Your task to perform on an android device: Go to calendar. Show me events next week Image 0: 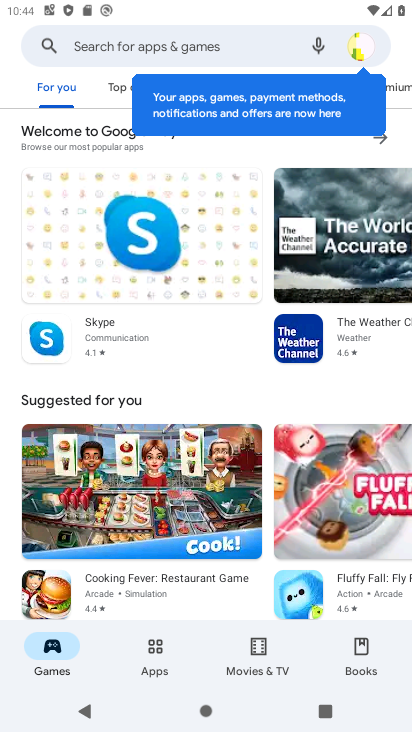
Step 0: press home button
Your task to perform on an android device: Go to calendar. Show me events next week Image 1: 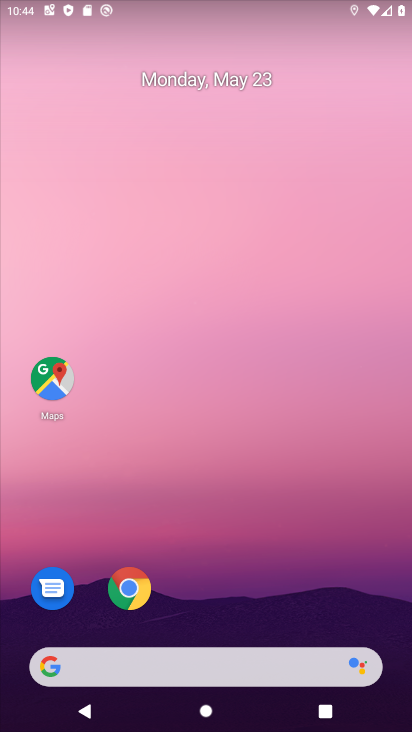
Step 1: drag from (316, 605) to (312, 140)
Your task to perform on an android device: Go to calendar. Show me events next week Image 2: 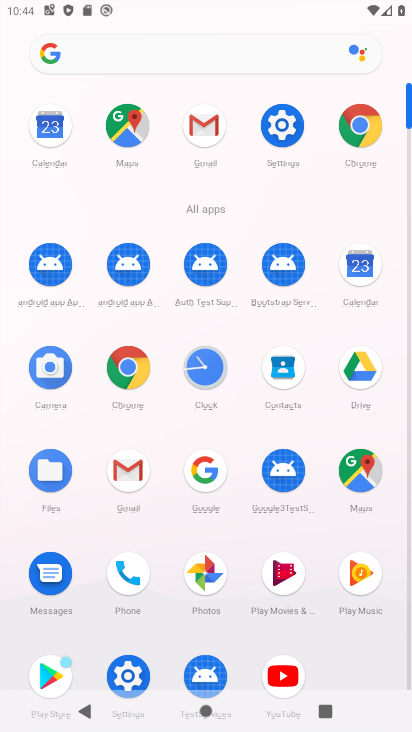
Step 2: click (357, 261)
Your task to perform on an android device: Go to calendar. Show me events next week Image 3: 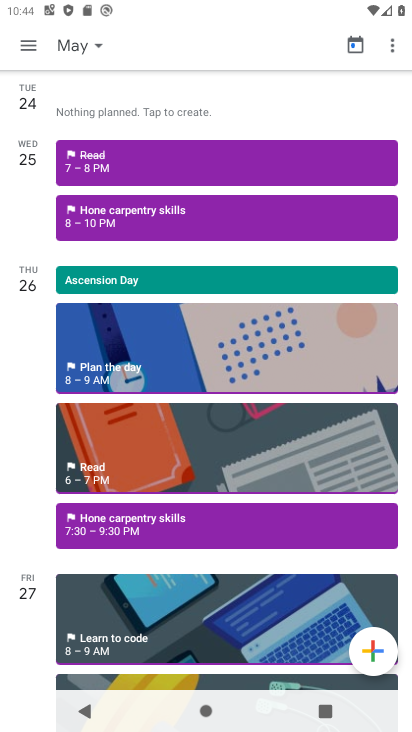
Step 3: click (65, 40)
Your task to perform on an android device: Go to calendar. Show me events next week Image 4: 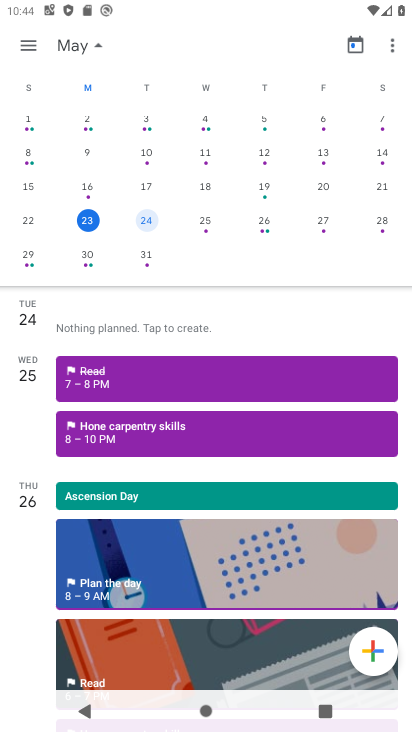
Step 4: click (94, 252)
Your task to perform on an android device: Go to calendar. Show me events next week Image 5: 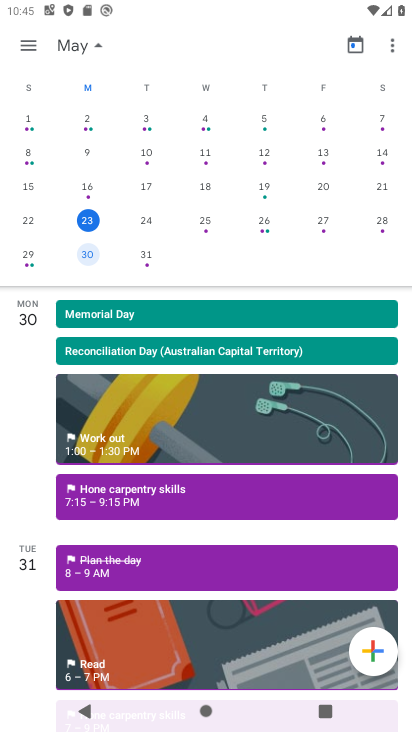
Step 5: click (35, 37)
Your task to perform on an android device: Go to calendar. Show me events next week Image 6: 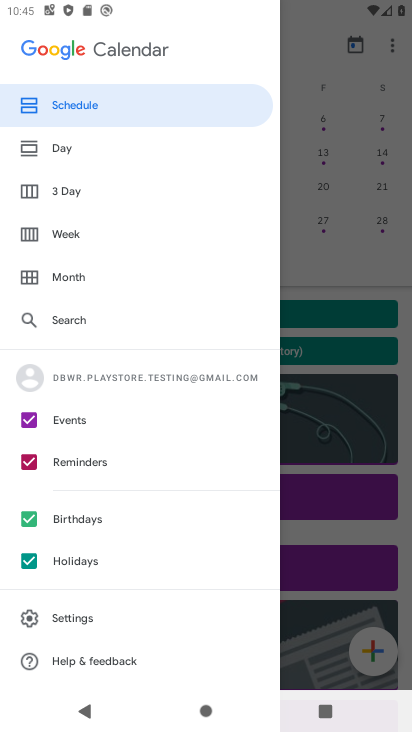
Step 6: click (78, 230)
Your task to perform on an android device: Go to calendar. Show me events next week Image 7: 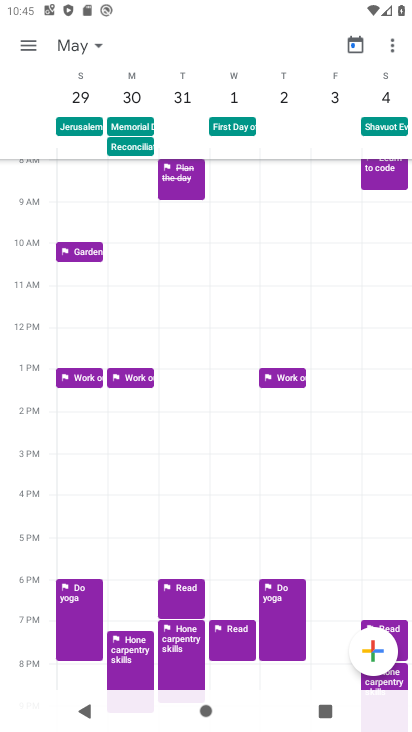
Step 7: task complete